Your task to perform on an android device: turn off location Image 0: 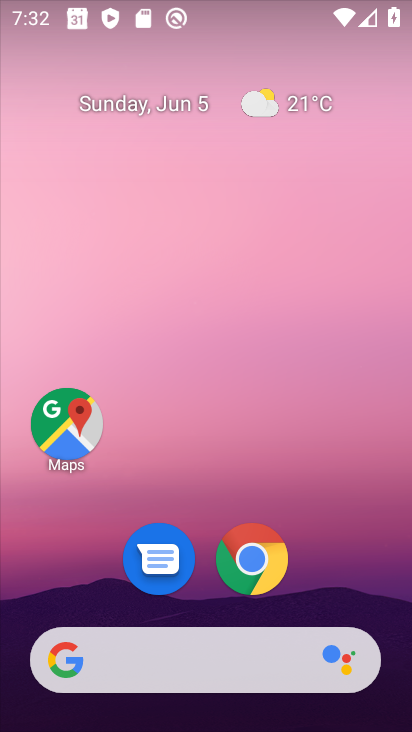
Step 0: drag from (204, 620) to (122, 84)
Your task to perform on an android device: turn off location Image 1: 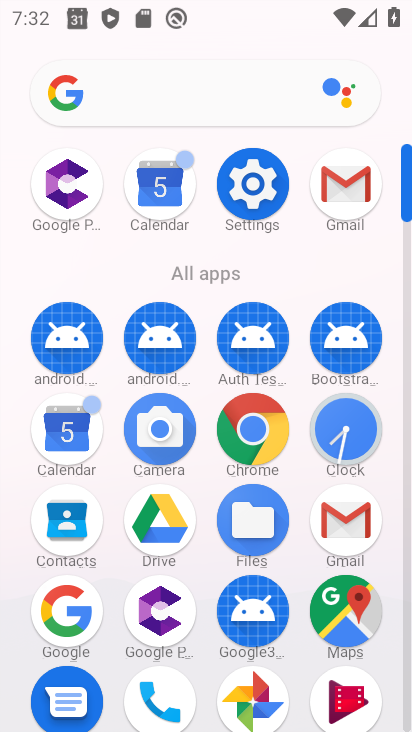
Step 1: click (255, 175)
Your task to perform on an android device: turn off location Image 2: 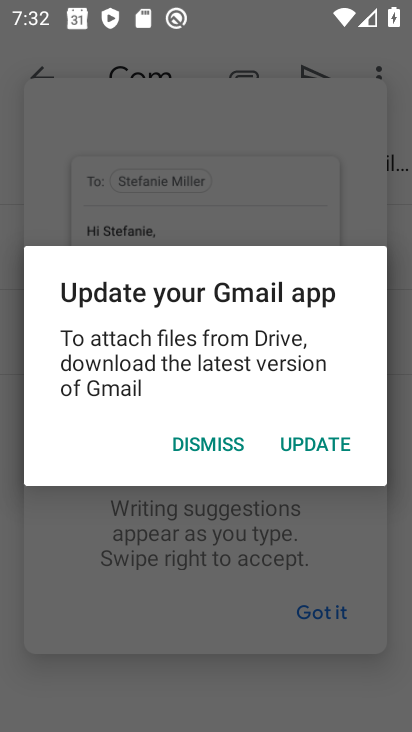
Step 2: click (224, 442)
Your task to perform on an android device: turn off location Image 3: 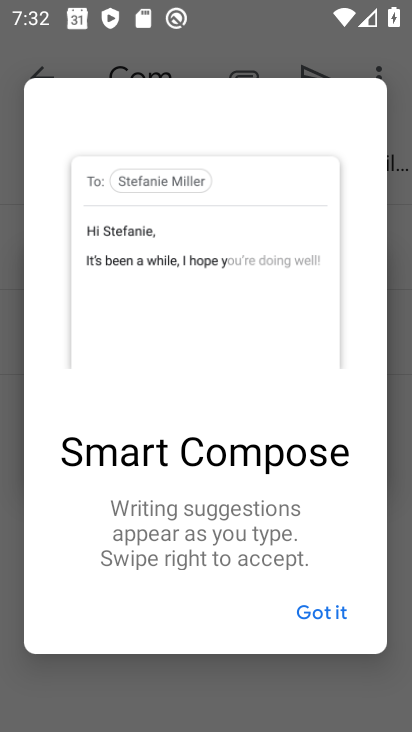
Step 3: press home button
Your task to perform on an android device: turn off location Image 4: 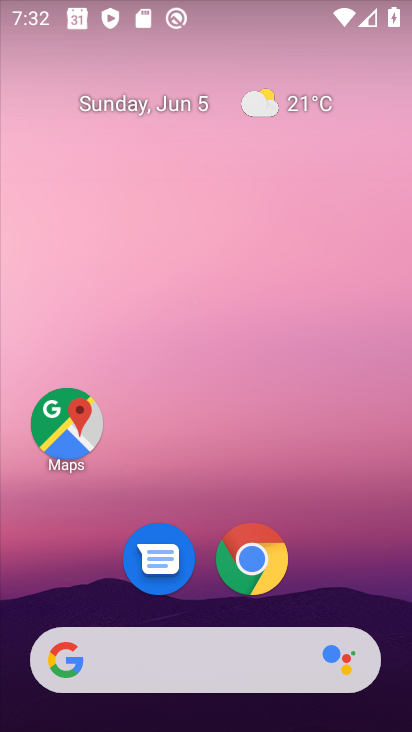
Step 4: drag from (207, 636) to (112, 62)
Your task to perform on an android device: turn off location Image 5: 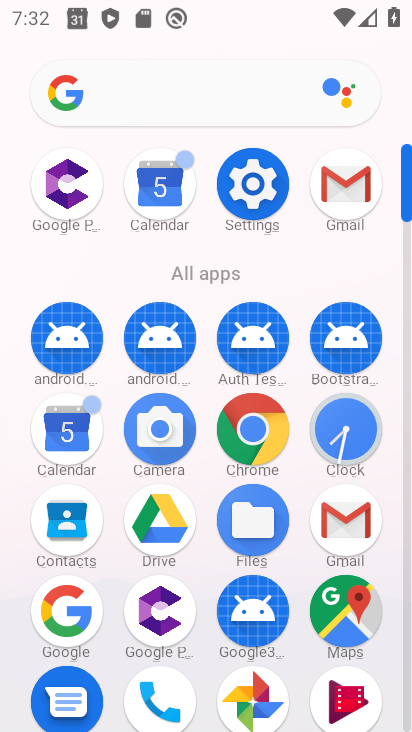
Step 5: click (239, 200)
Your task to perform on an android device: turn off location Image 6: 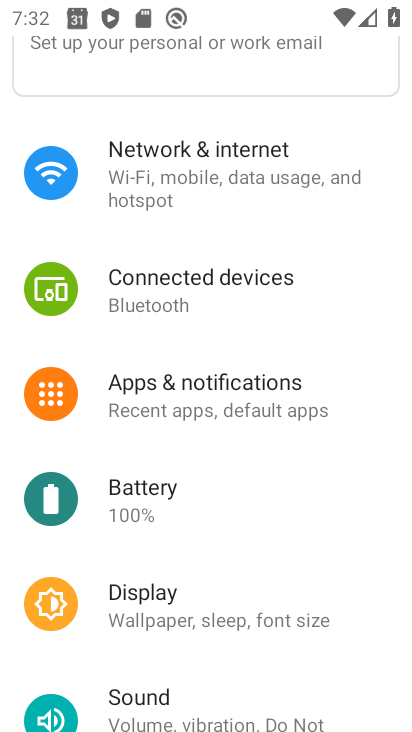
Step 6: drag from (224, 536) to (156, 135)
Your task to perform on an android device: turn off location Image 7: 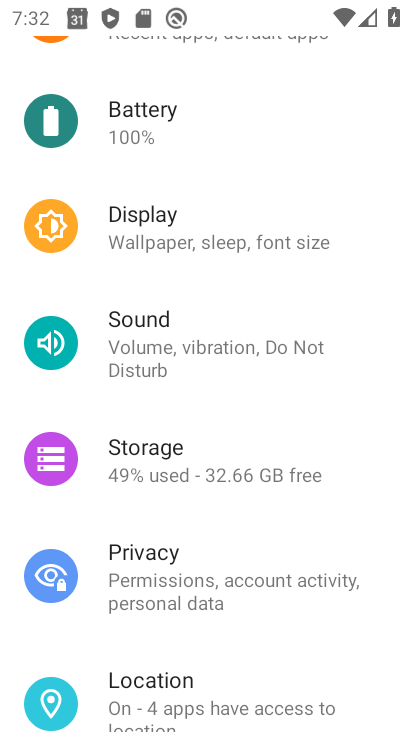
Step 7: click (171, 693)
Your task to perform on an android device: turn off location Image 8: 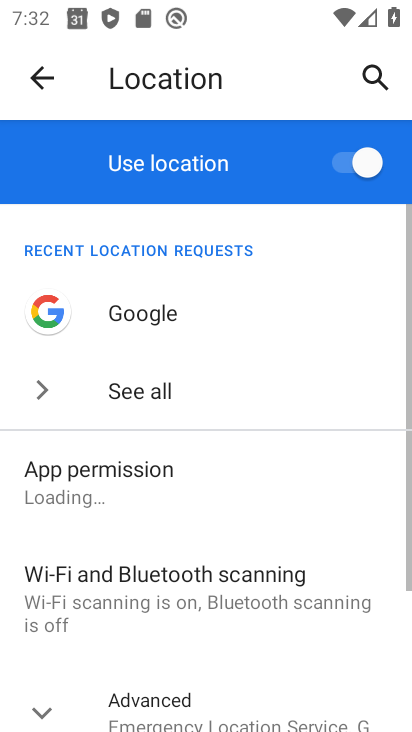
Step 8: click (340, 173)
Your task to perform on an android device: turn off location Image 9: 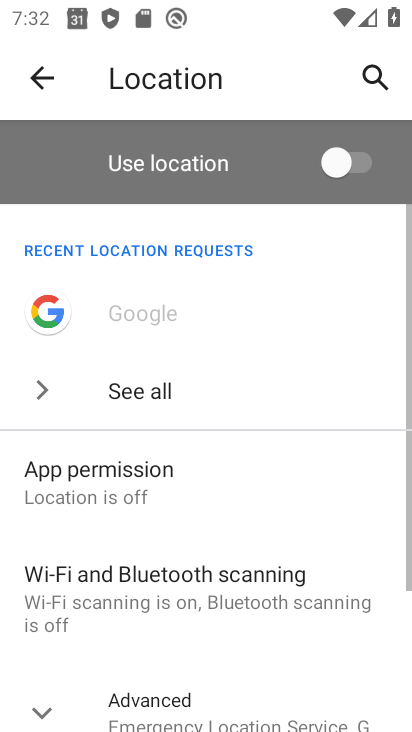
Step 9: task complete